Your task to perform on an android device: Search for razer blackwidow on ebay.com, select the first entry, and add it to the cart. Image 0: 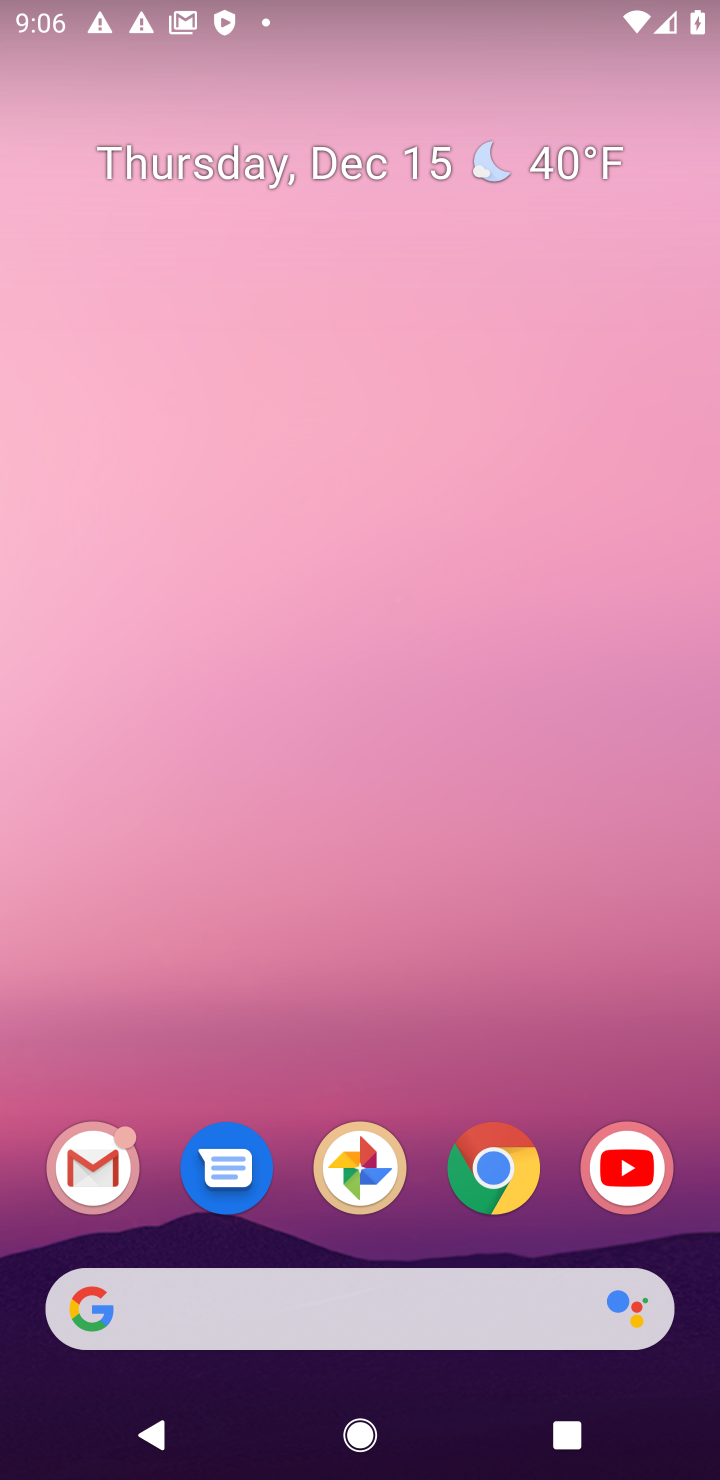
Step 0: click (500, 1173)
Your task to perform on an android device: Search for razer blackwidow on ebay.com, select the first entry, and add it to the cart. Image 1: 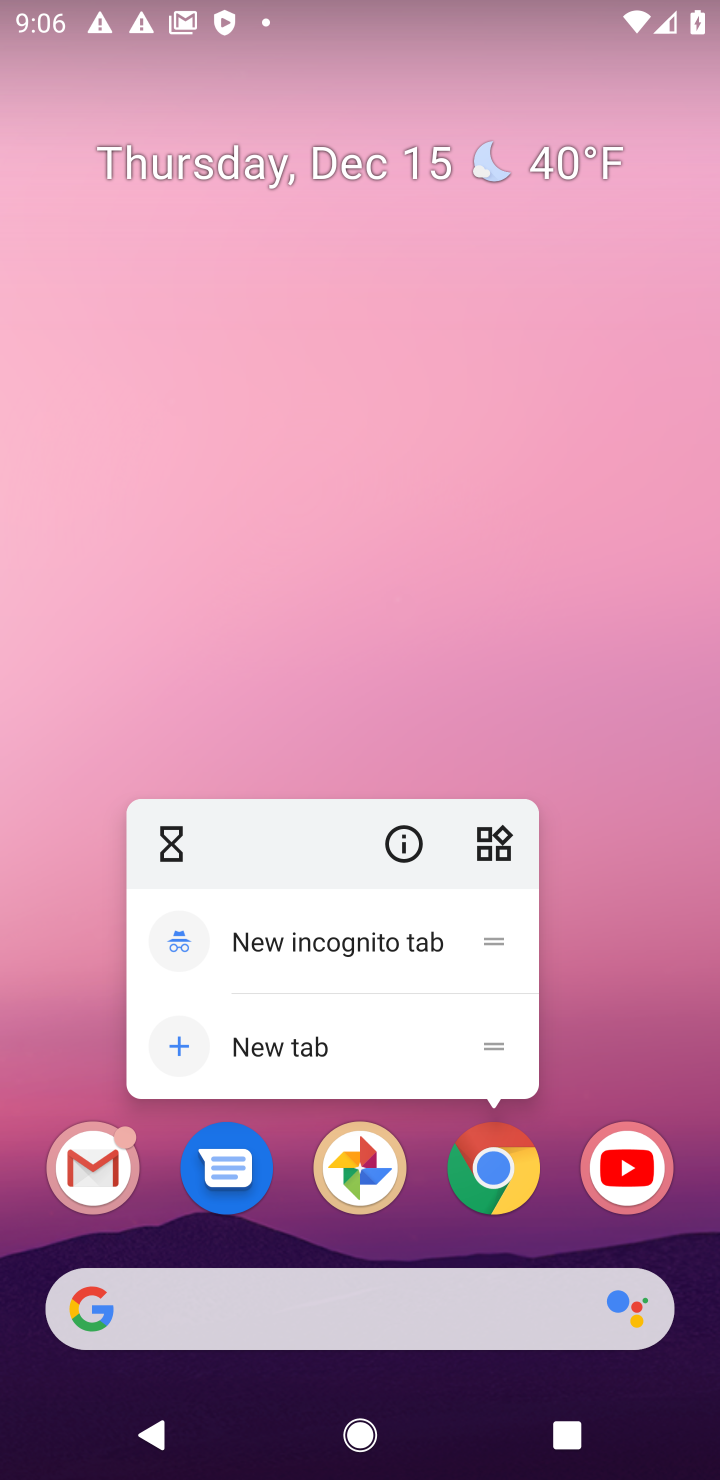
Step 1: click (480, 1157)
Your task to perform on an android device: Search for razer blackwidow on ebay.com, select the first entry, and add it to the cart. Image 2: 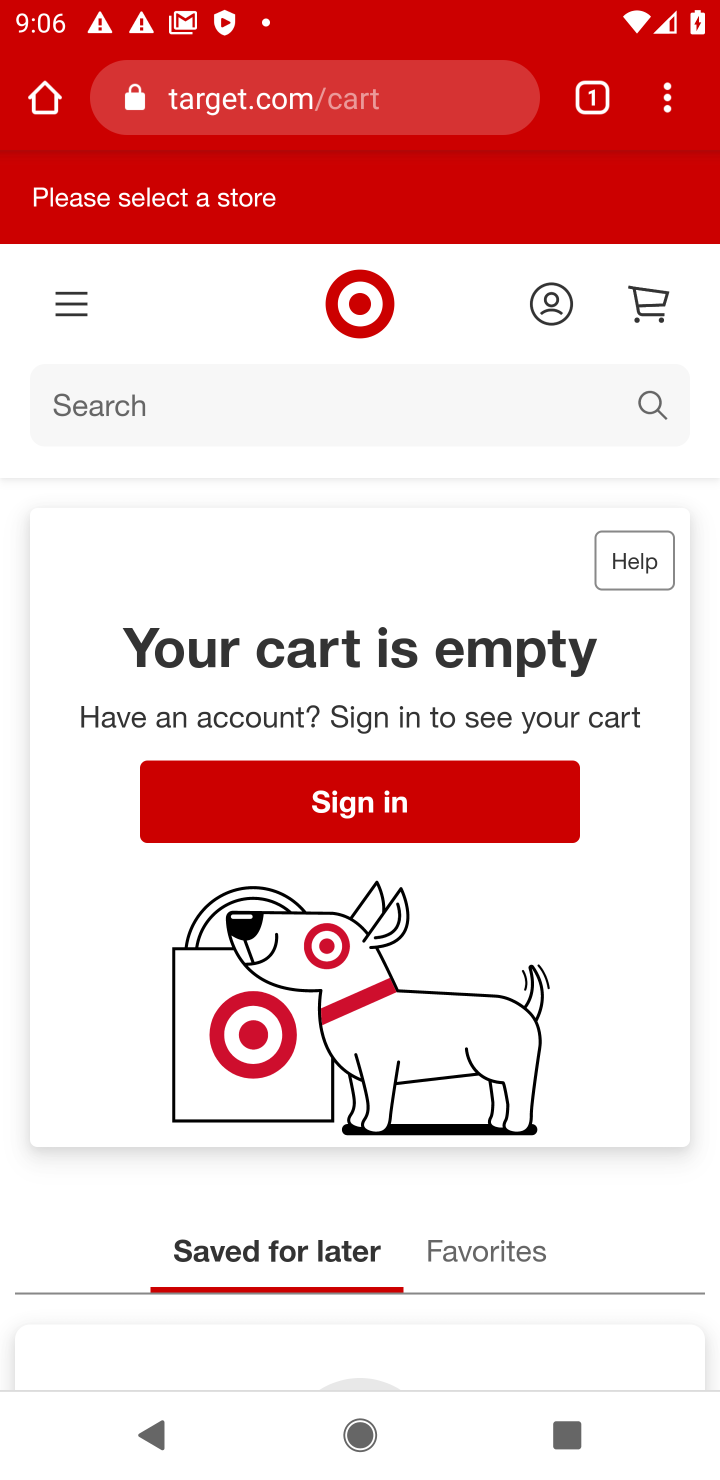
Step 2: click (411, 89)
Your task to perform on an android device: Search for razer blackwidow on ebay.com, select the first entry, and add it to the cart. Image 3: 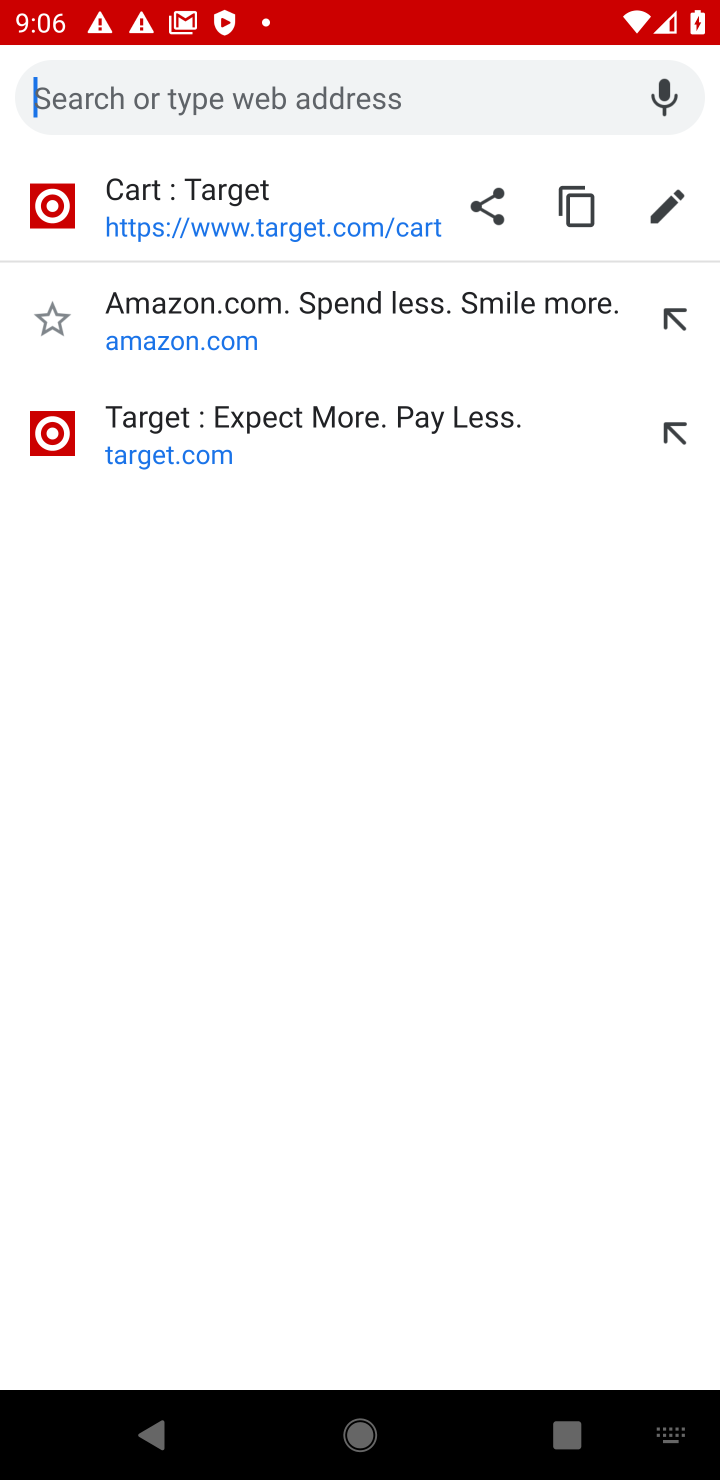
Step 3: type "EBAY"
Your task to perform on an android device: Search for razer blackwidow on ebay.com, select the first entry, and add it to the cart. Image 4: 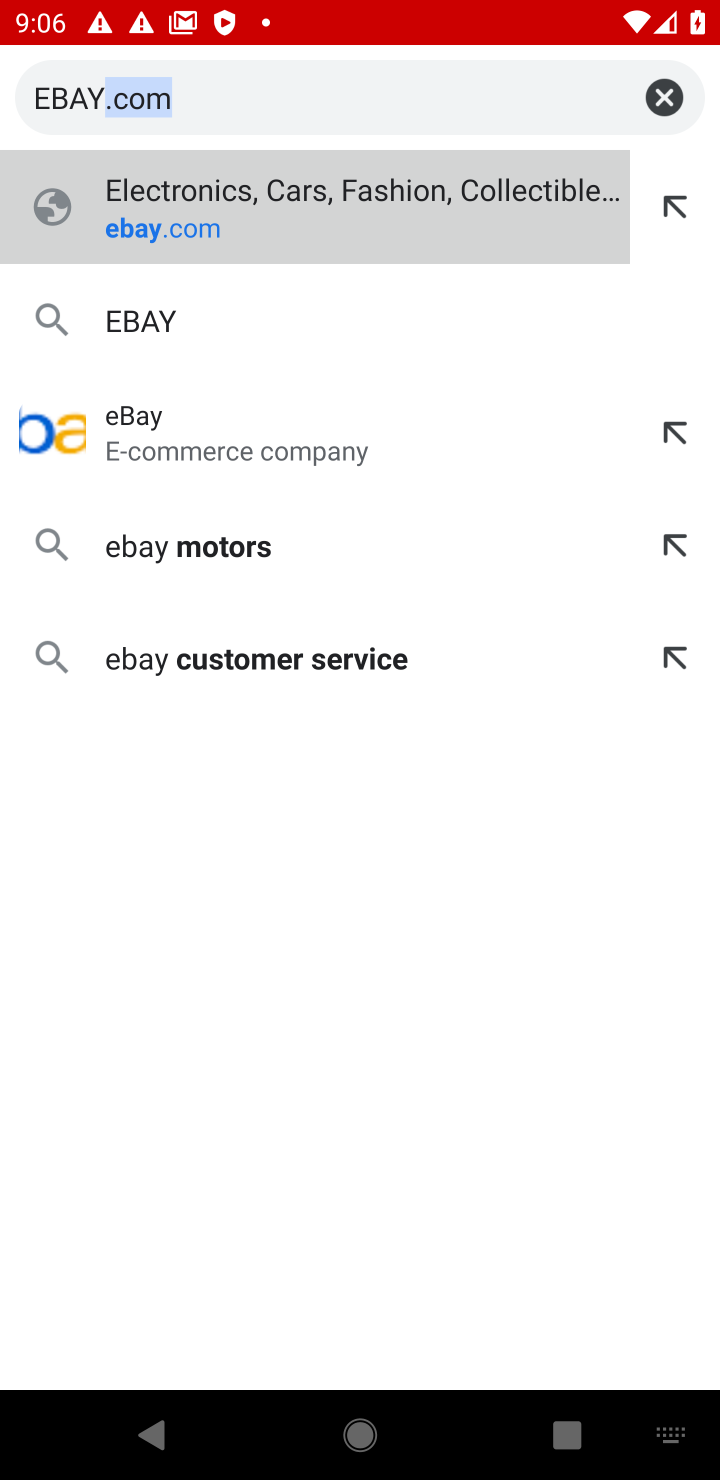
Step 4: click (271, 202)
Your task to perform on an android device: Search for razer blackwidow on ebay.com, select the first entry, and add it to the cart. Image 5: 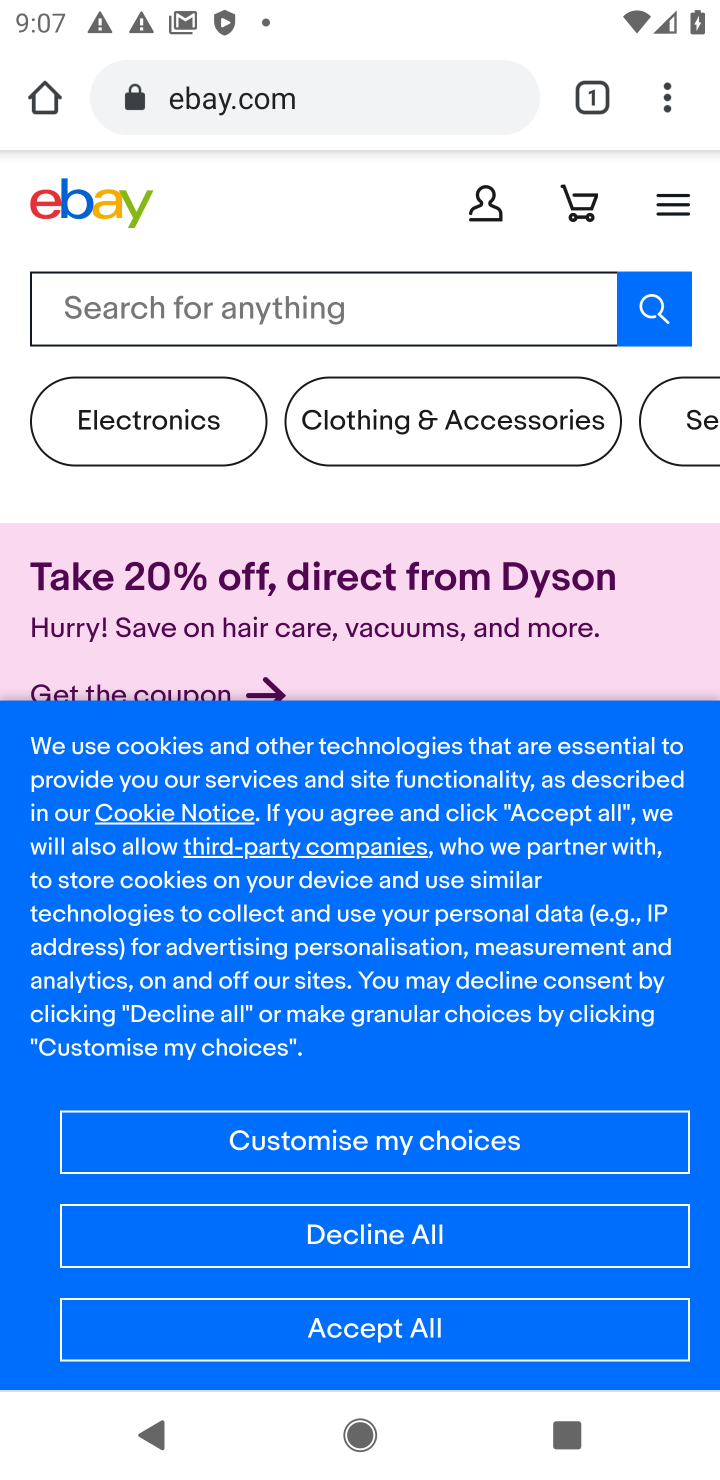
Step 5: click (387, 1338)
Your task to perform on an android device: Search for razer blackwidow on ebay.com, select the first entry, and add it to the cart. Image 6: 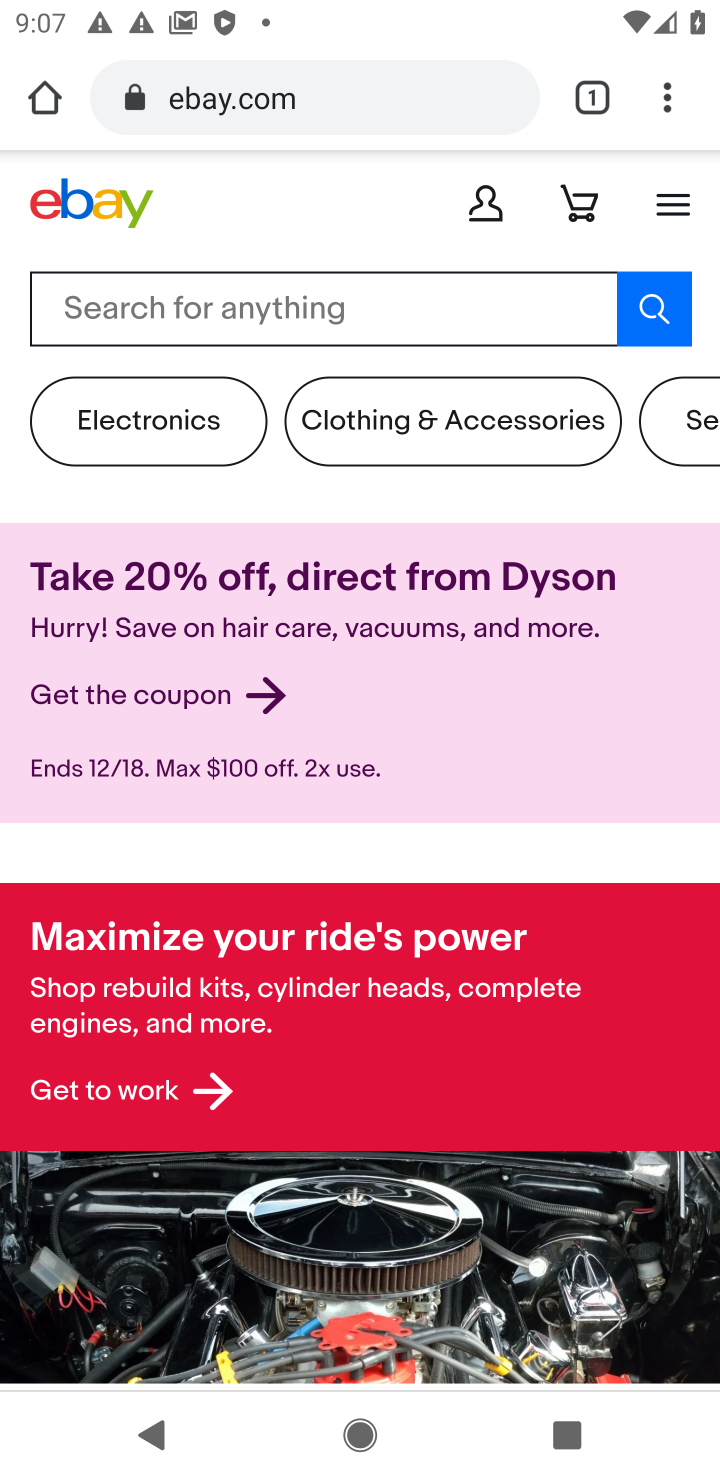
Step 6: click (318, 314)
Your task to perform on an android device: Search for razer blackwidow on ebay.com, select the first entry, and add it to the cart. Image 7: 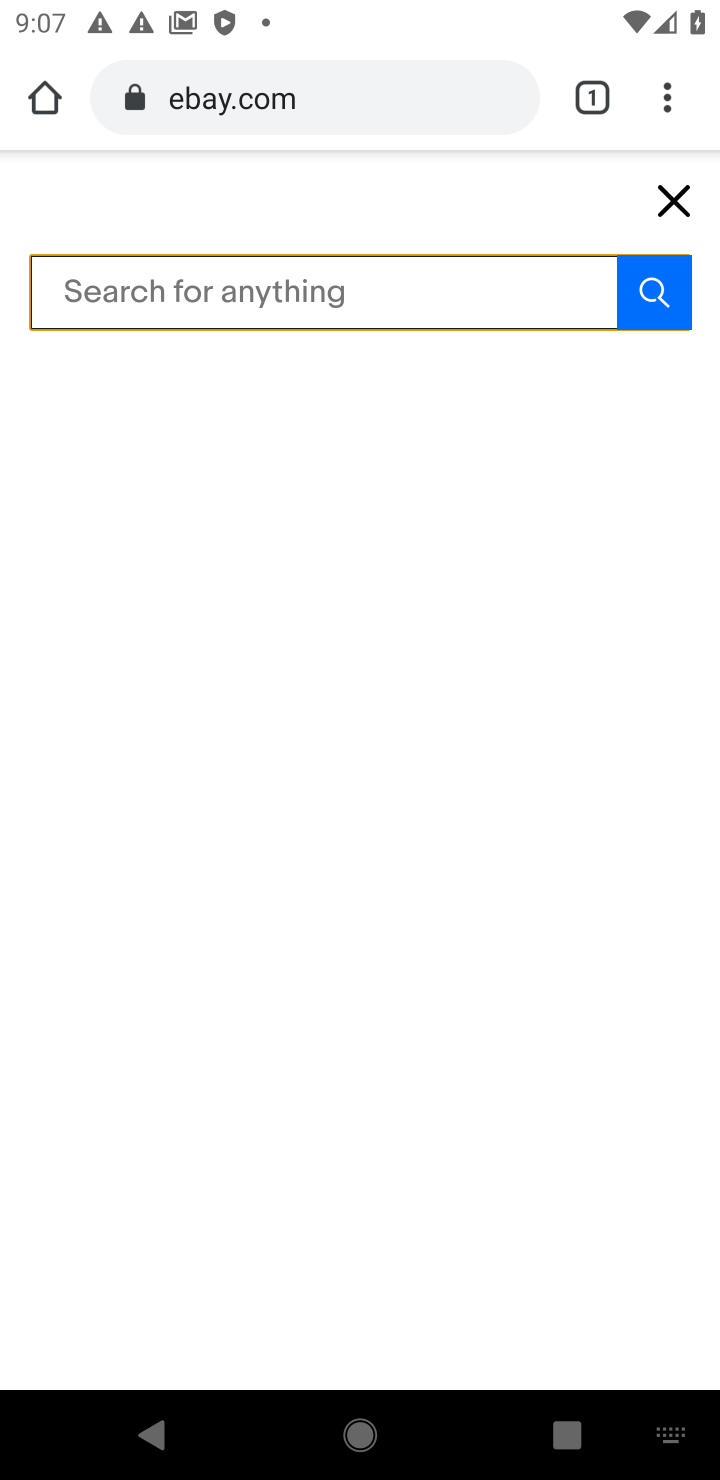
Step 7: type "razer blackwidow"
Your task to perform on an android device: Search for razer blackwidow on ebay.com, select the first entry, and add it to the cart. Image 8: 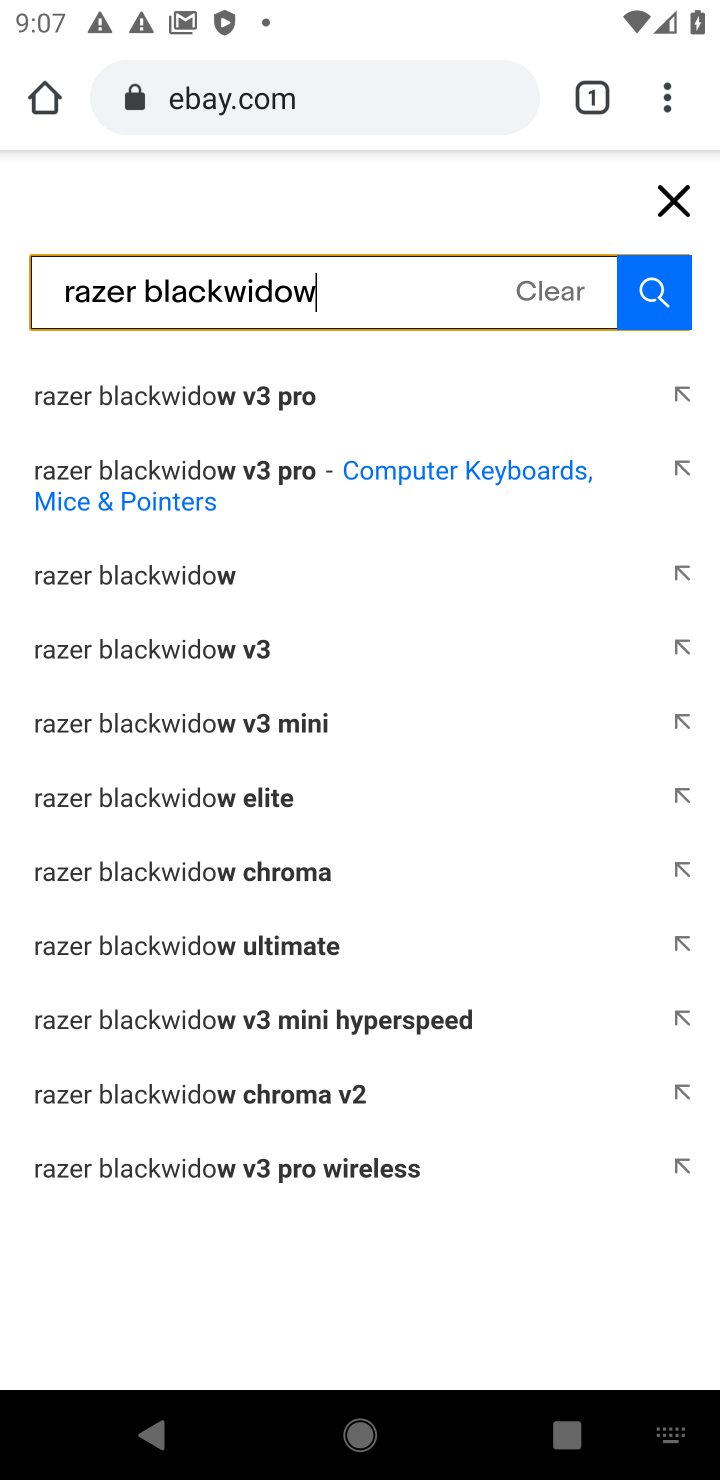
Step 8: click (286, 395)
Your task to perform on an android device: Search for razer blackwidow on ebay.com, select the first entry, and add it to the cart. Image 9: 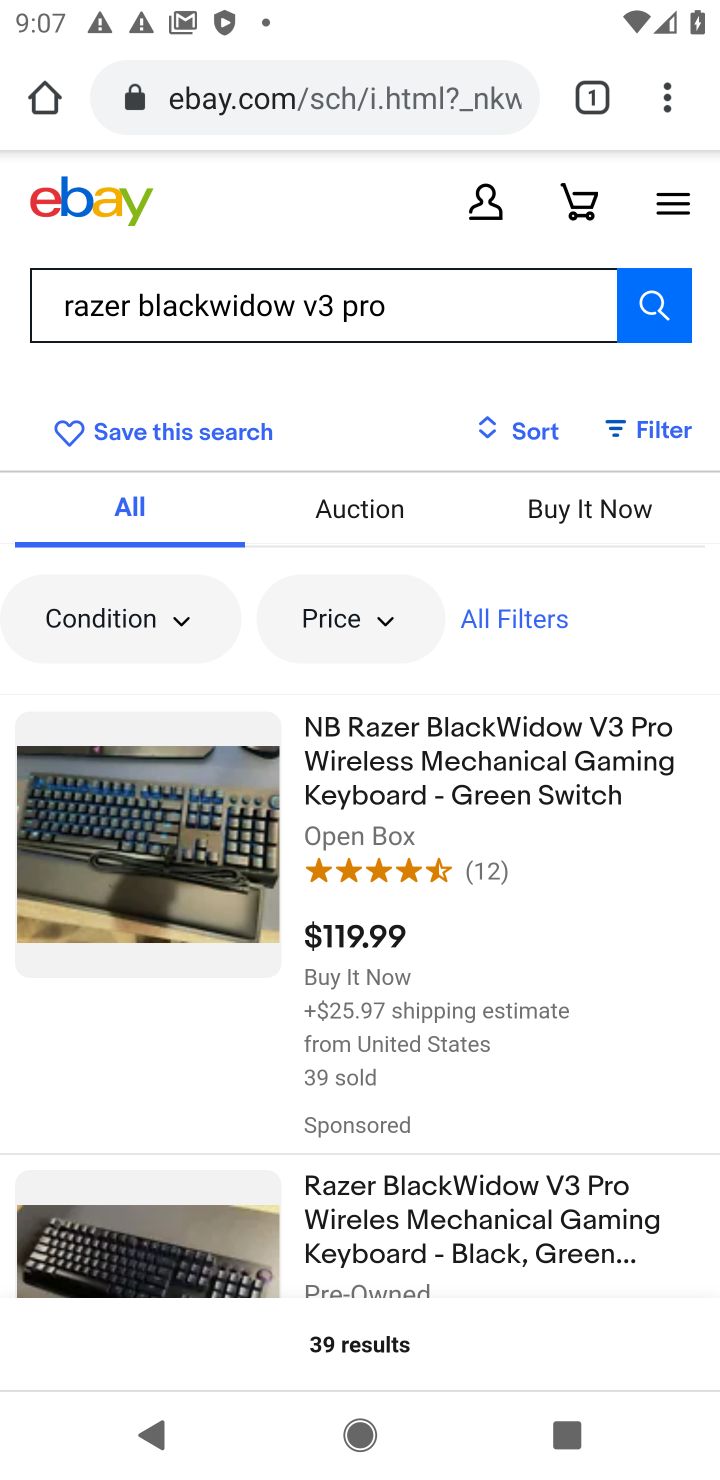
Step 9: click (562, 809)
Your task to perform on an android device: Search for razer blackwidow on ebay.com, select the first entry, and add it to the cart. Image 10: 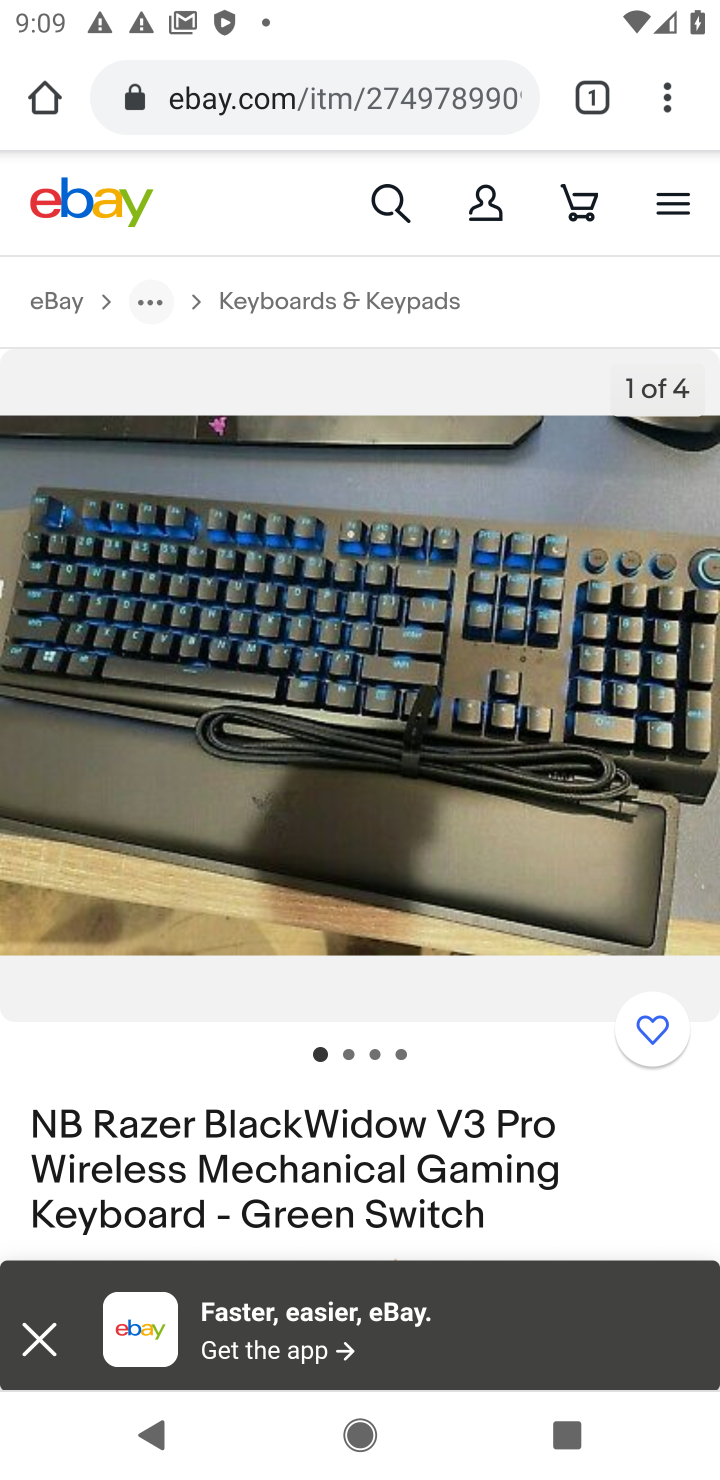
Step 10: drag from (490, 1164) to (597, 526)
Your task to perform on an android device: Search for razer blackwidow on ebay.com, select the first entry, and add it to the cart. Image 11: 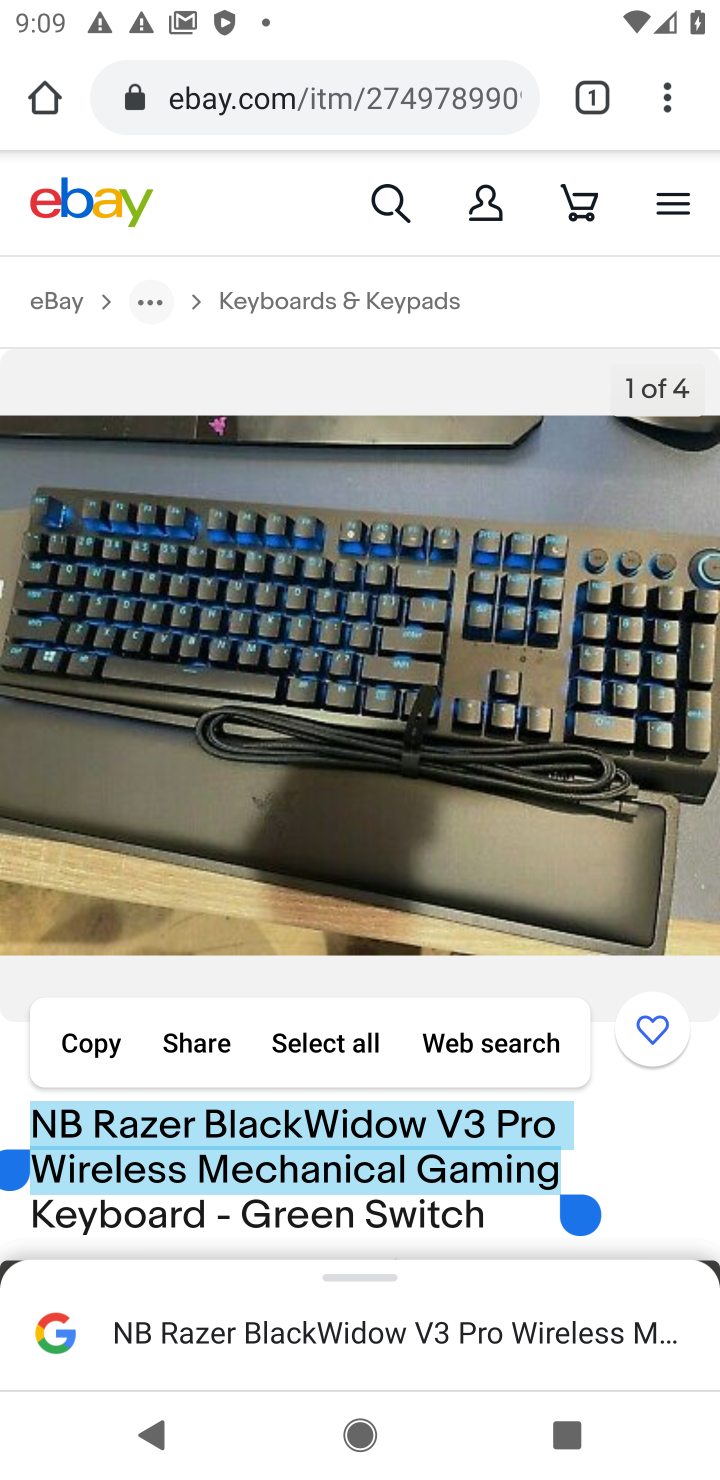
Step 11: click (627, 1184)
Your task to perform on an android device: Search for razer blackwidow on ebay.com, select the first entry, and add it to the cart. Image 12: 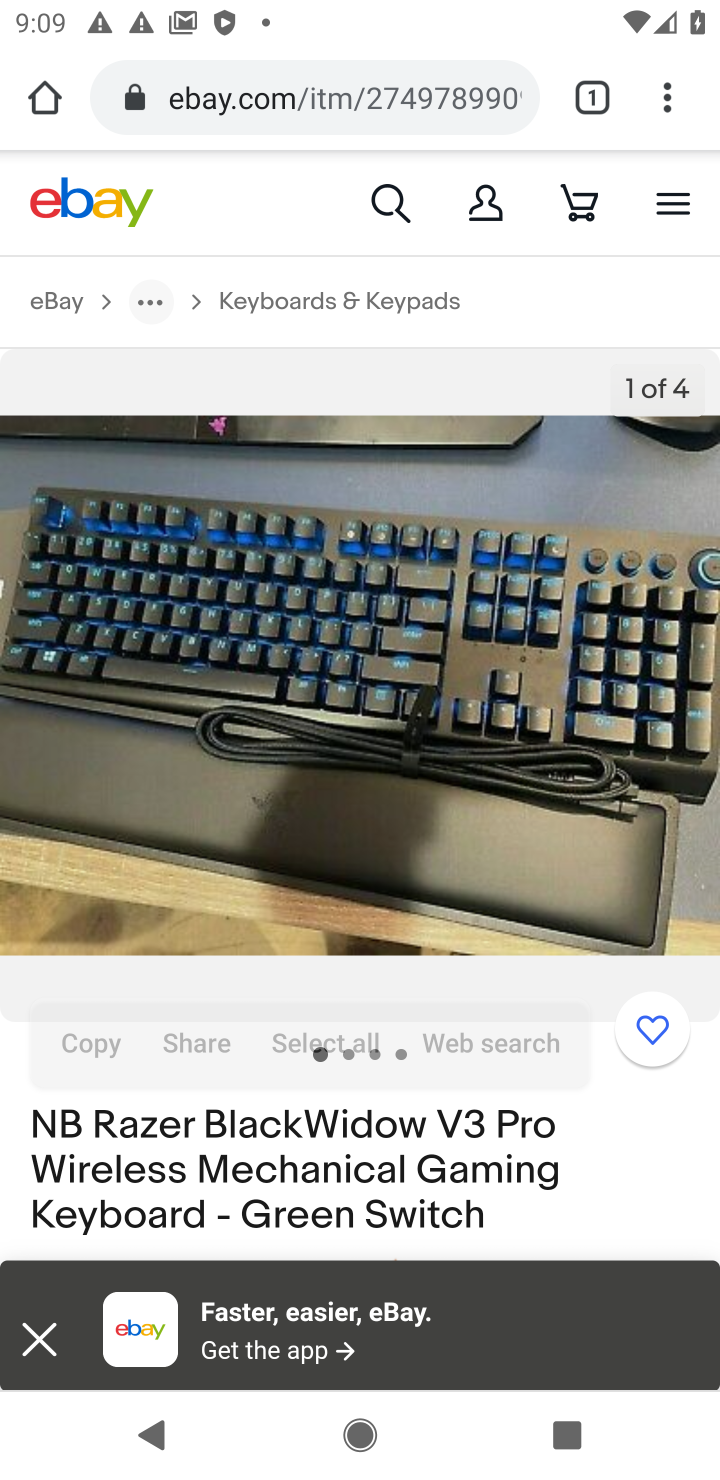
Step 12: click (679, 1141)
Your task to perform on an android device: Search for razer blackwidow on ebay.com, select the first entry, and add it to the cart. Image 13: 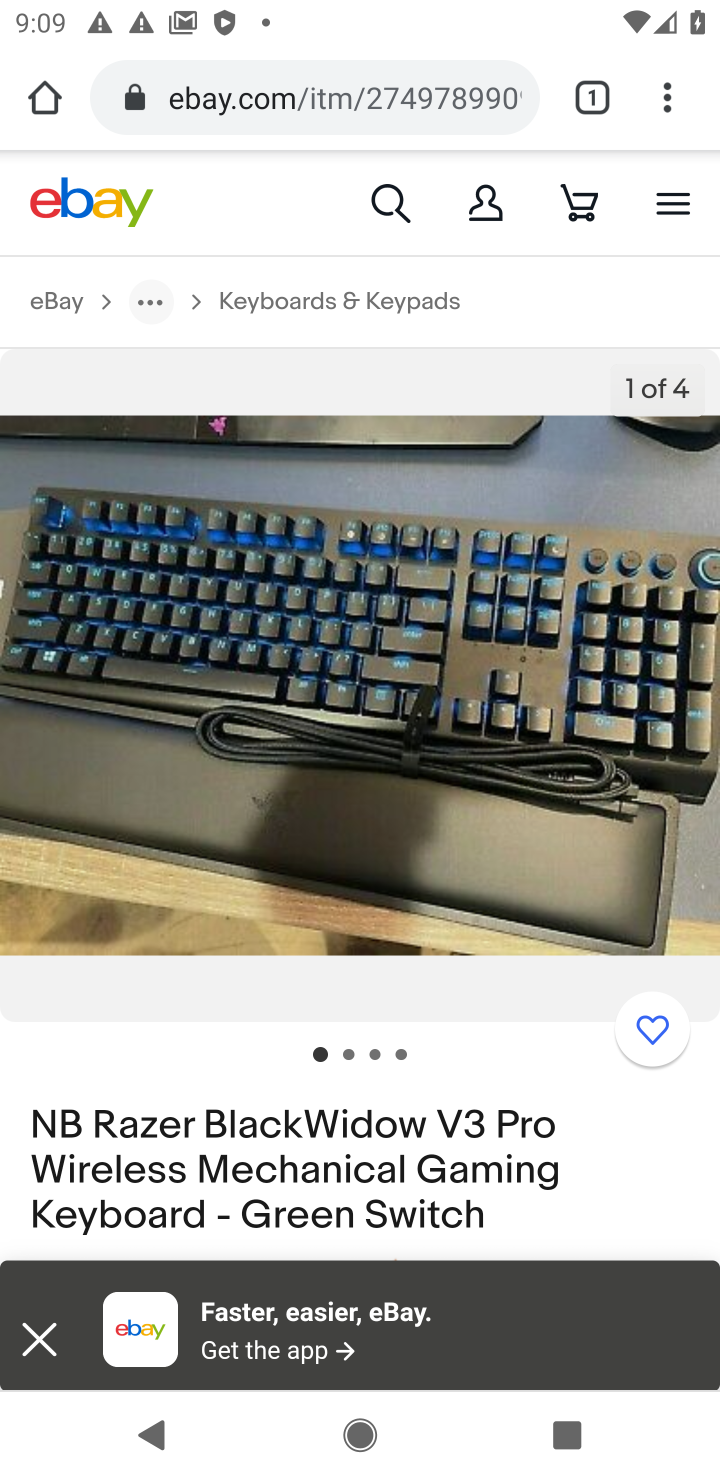
Step 13: drag from (679, 1141) to (492, 233)
Your task to perform on an android device: Search for razer blackwidow on ebay.com, select the first entry, and add it to the cart. Image 14: 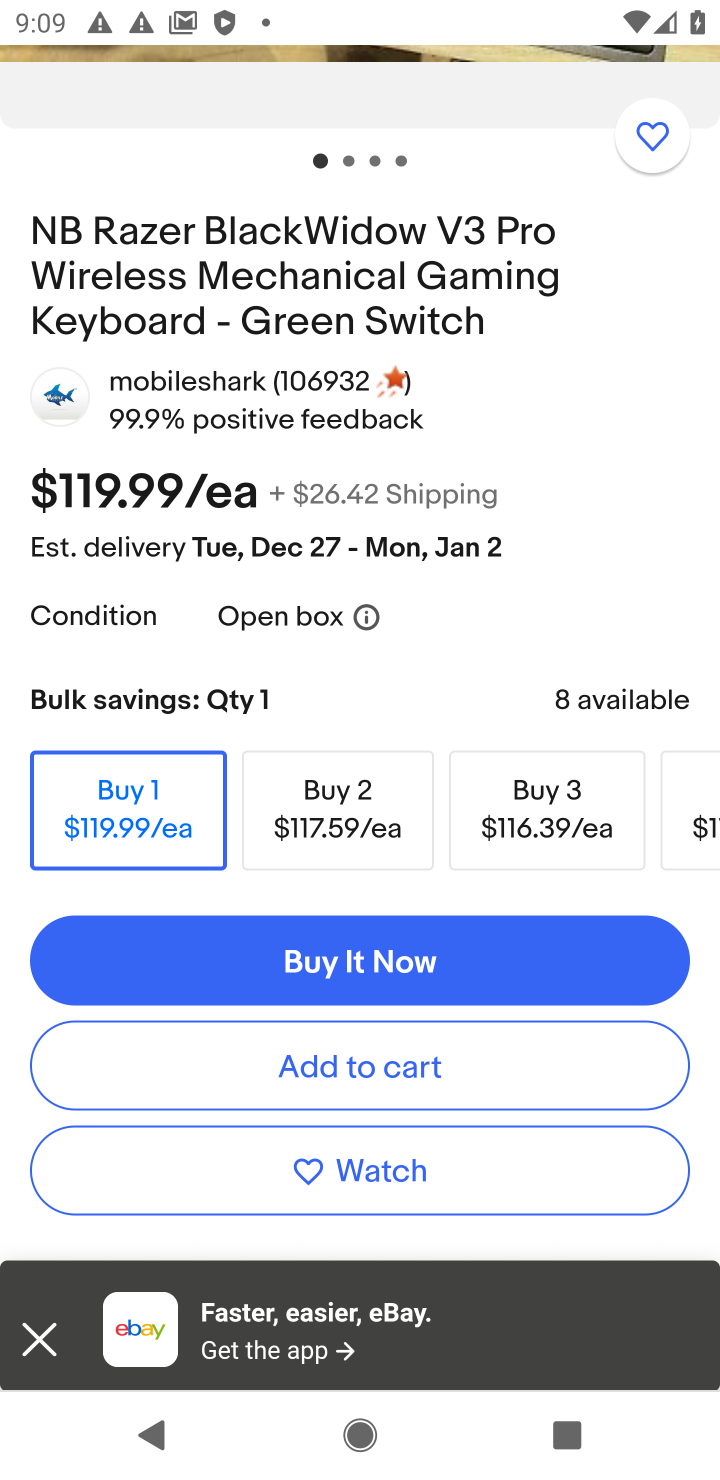
Step 14: click (364, 1065)
Your task to perform on an android device: Search for razer blackwidow on ebay.com, select the first entry, and add it to the cart. Image 15: 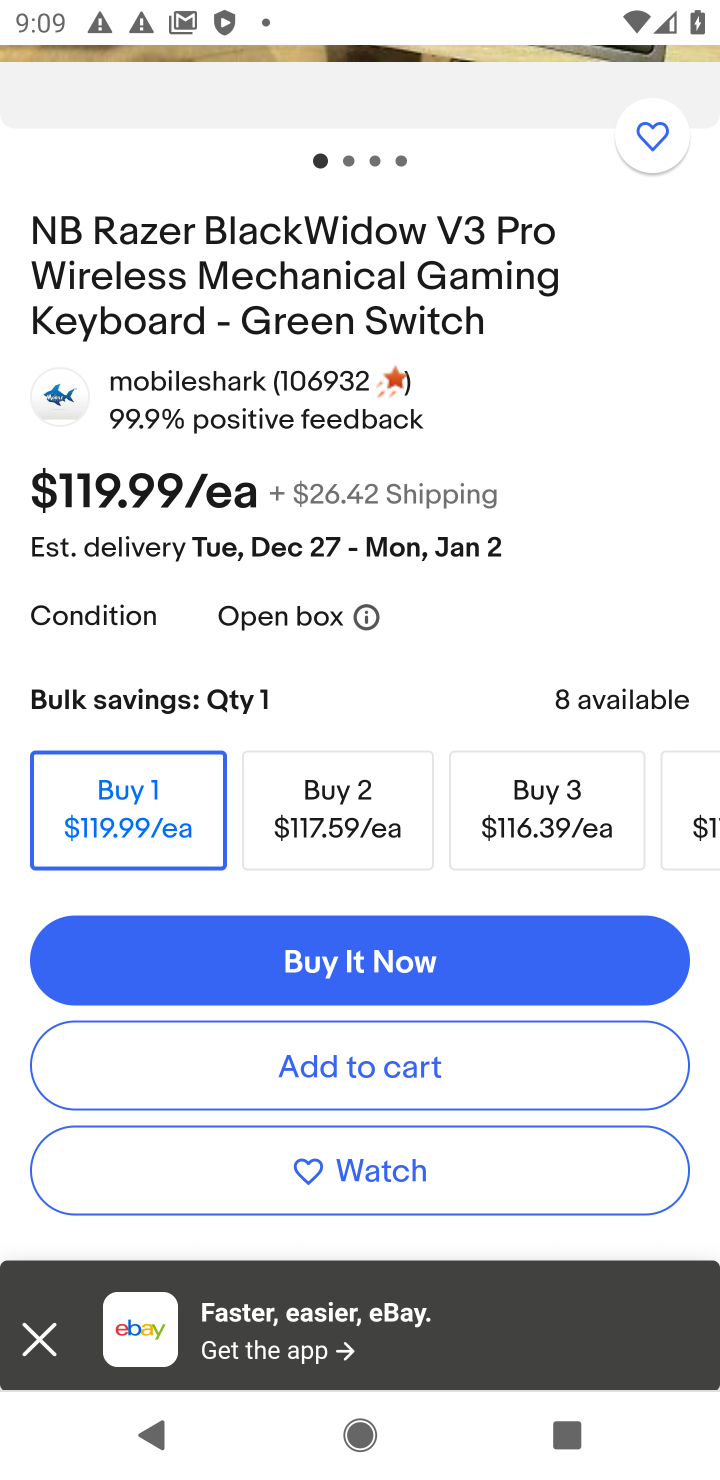
Step 15: task complete